Your task to perform on an android device: find which apps use the phone's location Image 0: 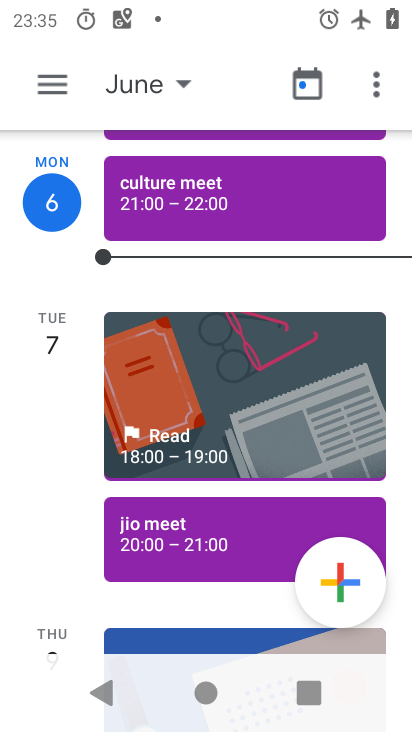
Step 0: drag from (258, 583) to (295, 180)
Your task to perform on an android device: find which apps use the phone's location Image 1: 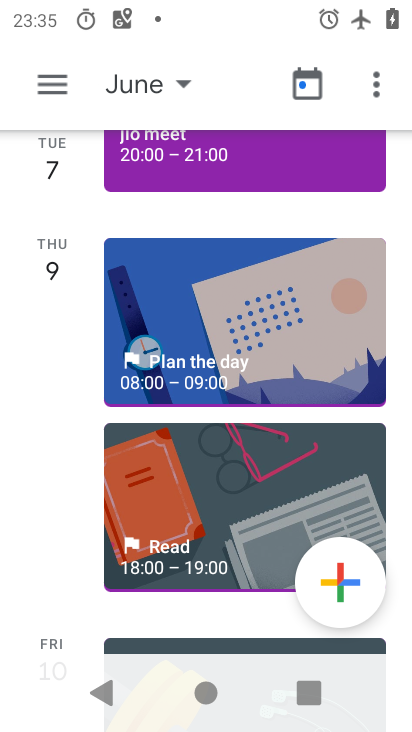
Step 1: press home button
Your task to perform on an android device: find which apps use the phone's location Image 2: 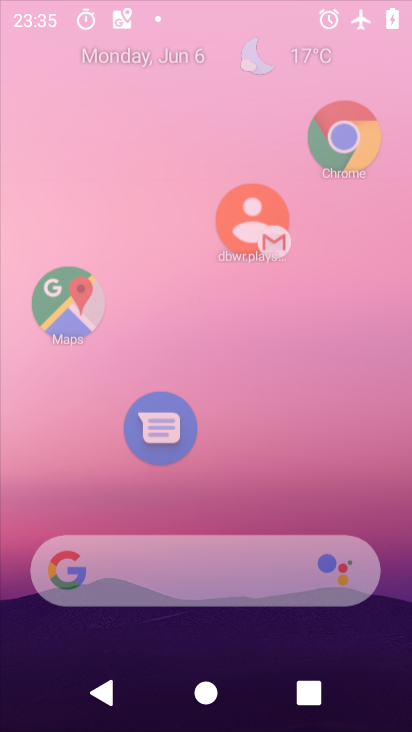
Step 2: drag from (248, 536) to (267, 64)
Your task to perform on an android device: find which apps use the phone's location Image 3: 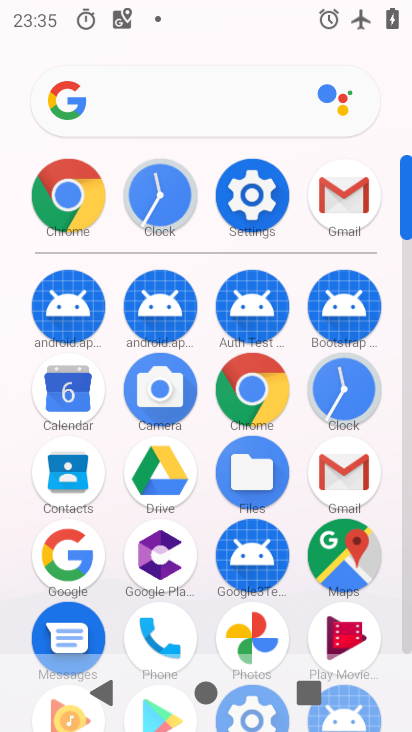
Step 3: click (244, 196)
Your task to perform on an android device: find which apps use the phone's location Image 4: 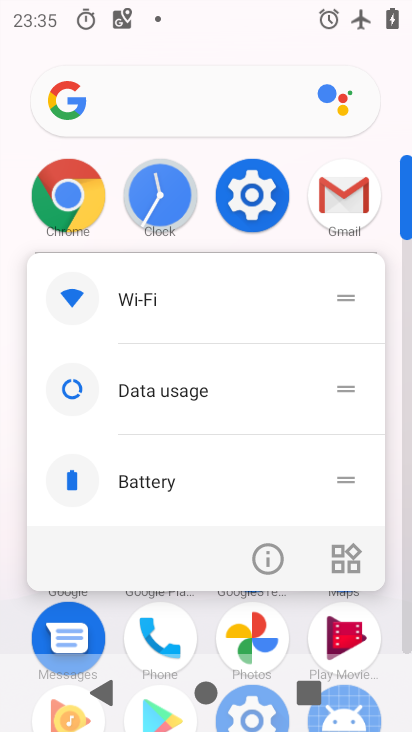
Step 4: click (269, 565)
Your task to perform on an android device: find which apps use the phone's location Image 5: 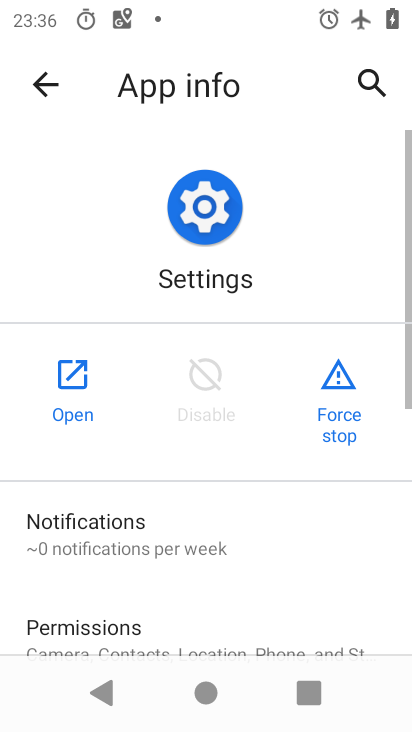
Step 5: click (71, 384)
Your task to perform on an android device: find which apps use the phone's location Image 6: 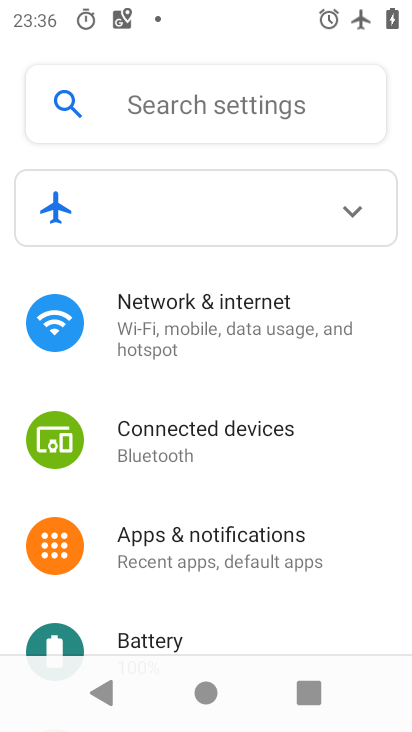
Step 6: drag from (191, 540) to (238, 6)
Your task to perform on an android device: find which apps use the phone's location Image 7: 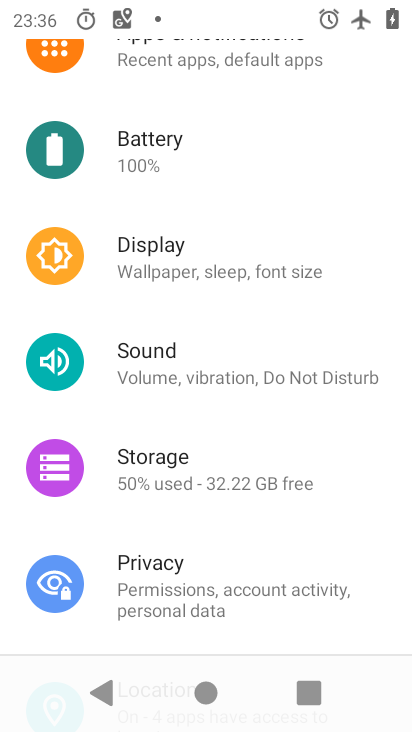
Step 7: drag from (199, 561) to (279, 7)
Your task to perform on an android device: find which apps use the phone's location Image 8: 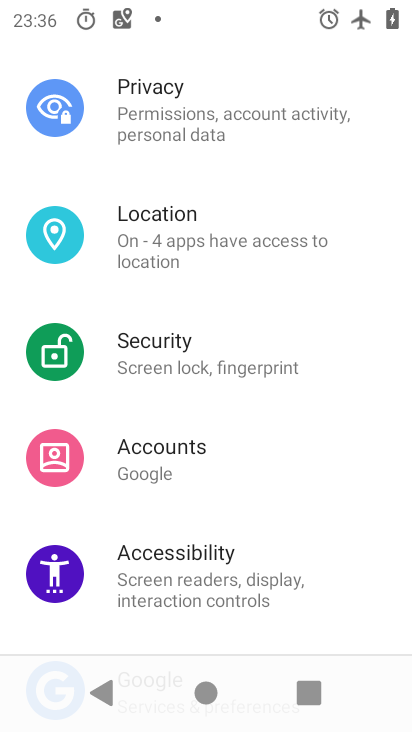
Step 8: click (189, 235)
Your task to perform on an android device: find which apps use the phone's location Image 9: 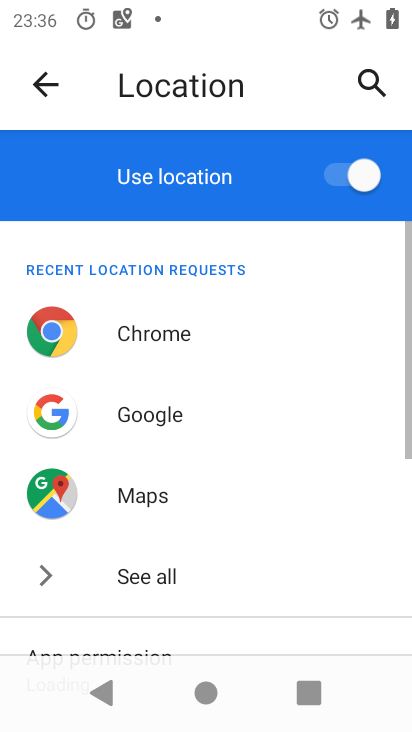
Step 9: drag from (146, 556) to (219, 78)
Your task to perform on an android device: find which apps use the phone's location Image 10: 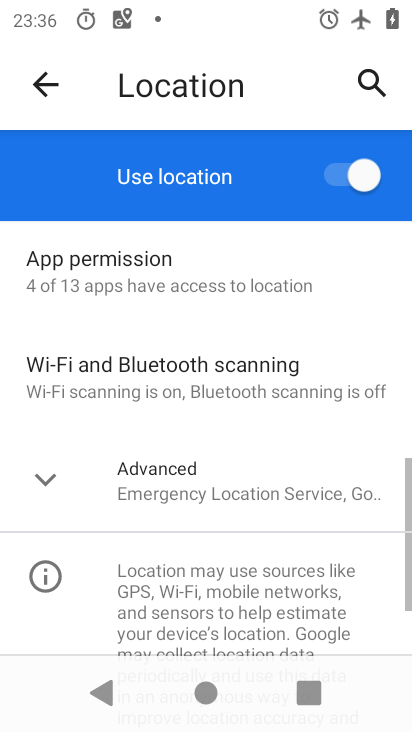
Step 10: click (122, 263)
Your task to perform on an android device: find which apps use the phone's location Image 11: 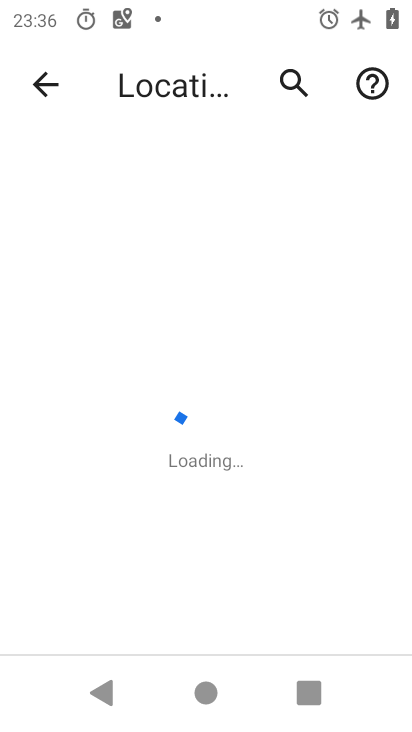
Step 11: task complete